Your task to perform on an android device: Go to Wikipedia Image 0: 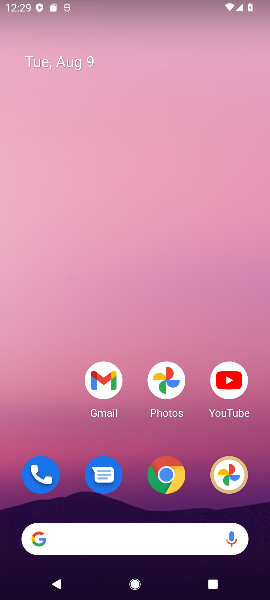
Step 0: click (164, 467)
Your task to perform on an android device: Go to Wikipedia Image 1: 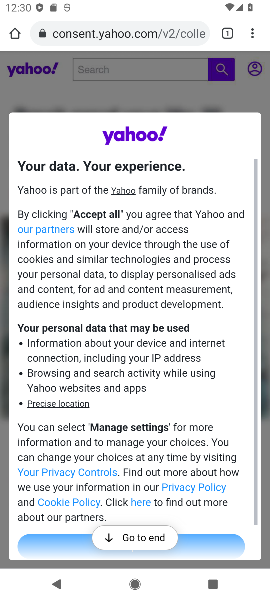
Step 1: click (130, 30)
Your task to perform on an android device: Go to Wikipedia Image 2: 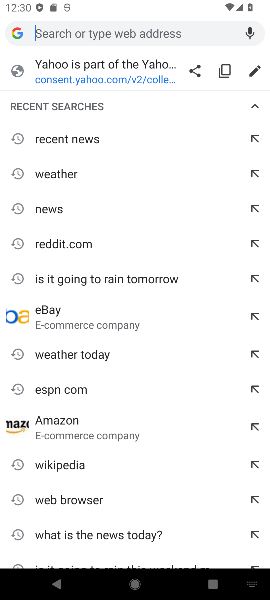
Step 2: type "wikipedia"
Your task to perform on an android device: Go to Wikipedia Image 3: 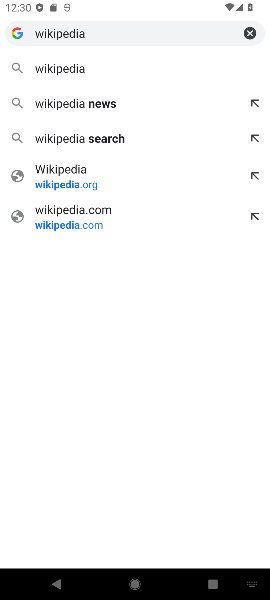
Step 3: click (175, 67)
Your task to perform on an android device: Go to Wikipedia Image 4: 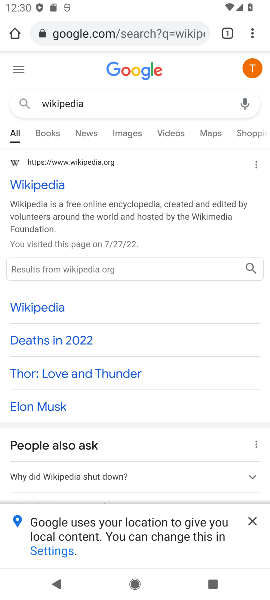
Step 4: click (29, 189)
Your task to perform on an android device: Go to Wikipedia Image 5: 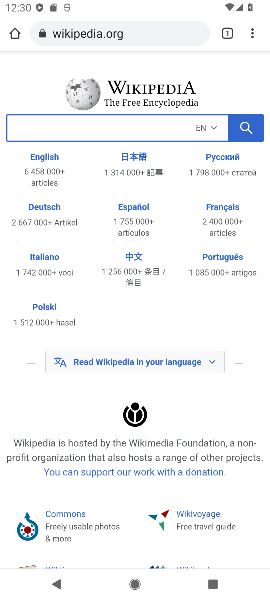
Step 5: task complete